Your task to perform on an android device: Open my contact list Image 0: 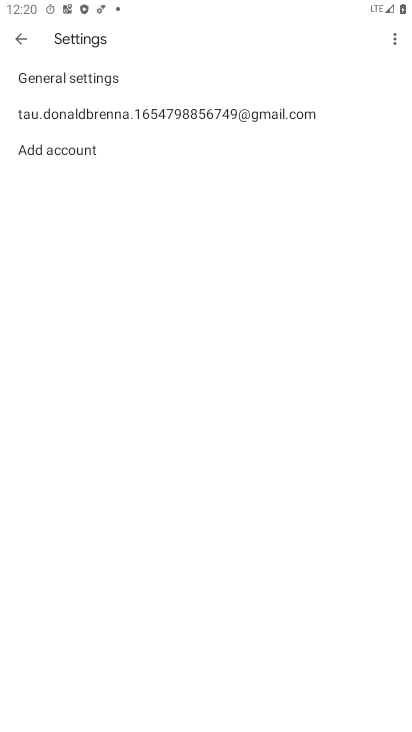
Step 0: press home button
Your task to perform on an android device: Open my contact list Image 1: 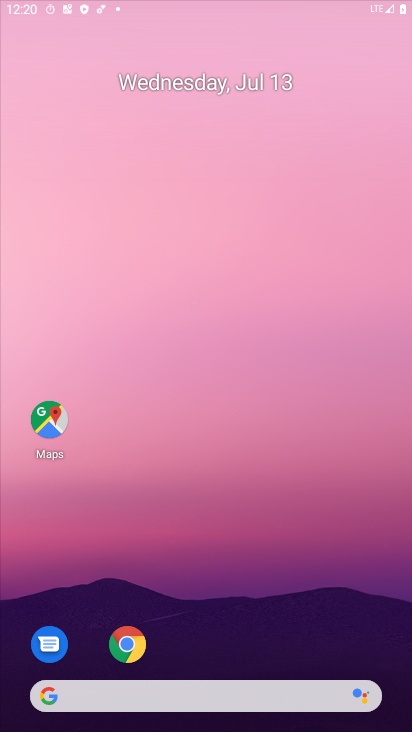
Step 1: drag from (223, 650) to (260, 151)
Your task to perform on an android device: Open my contact list Image 2: 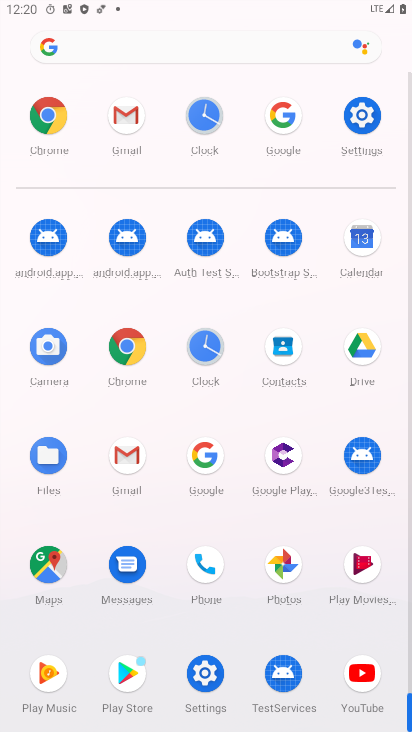
Step 2: click (279, 348)
Your task to perform on an android device: Open my contact list Image 3: 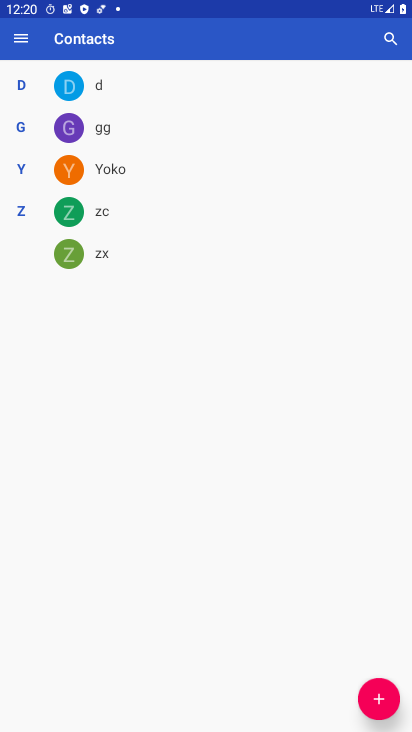
Step 3: click (381, 701)
Your task to perform on an android device: Open my contact list Image 4: 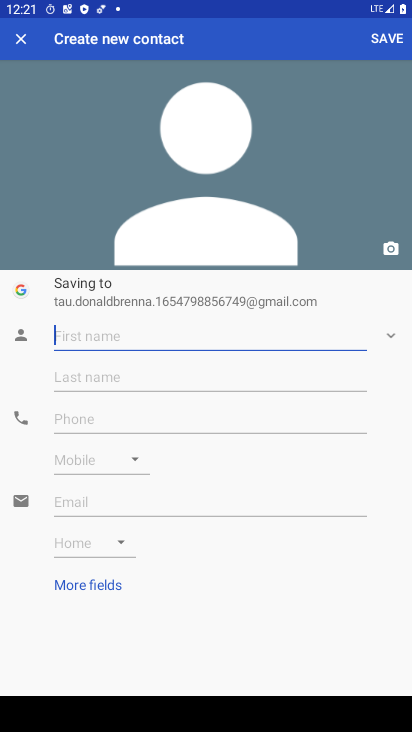
Step 4: task complete